Your task to perform on an android device: Clear the shopping cart on newegg.com. Image 0: 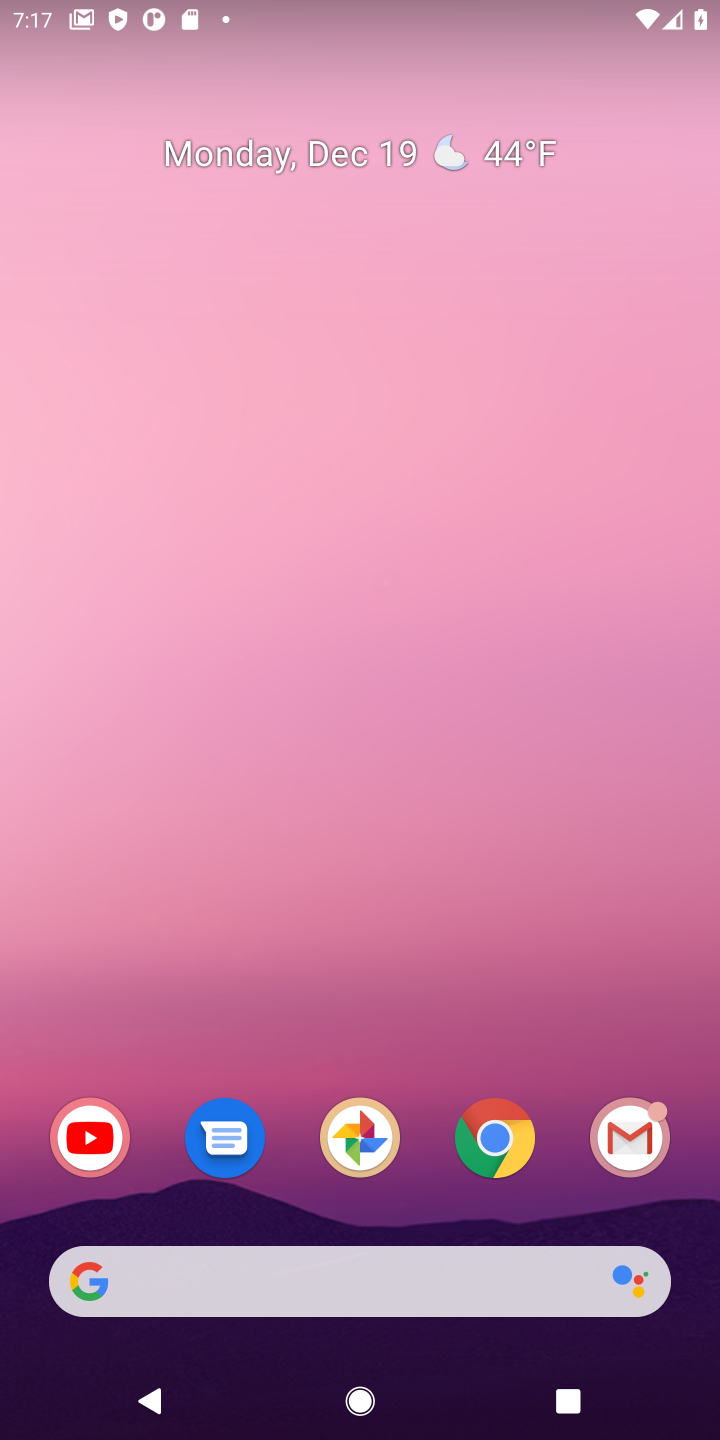
Step 0: click (509, 1163)
Your task to perform on an android device: Clear the shopping cart on newegg.com. Image 1: 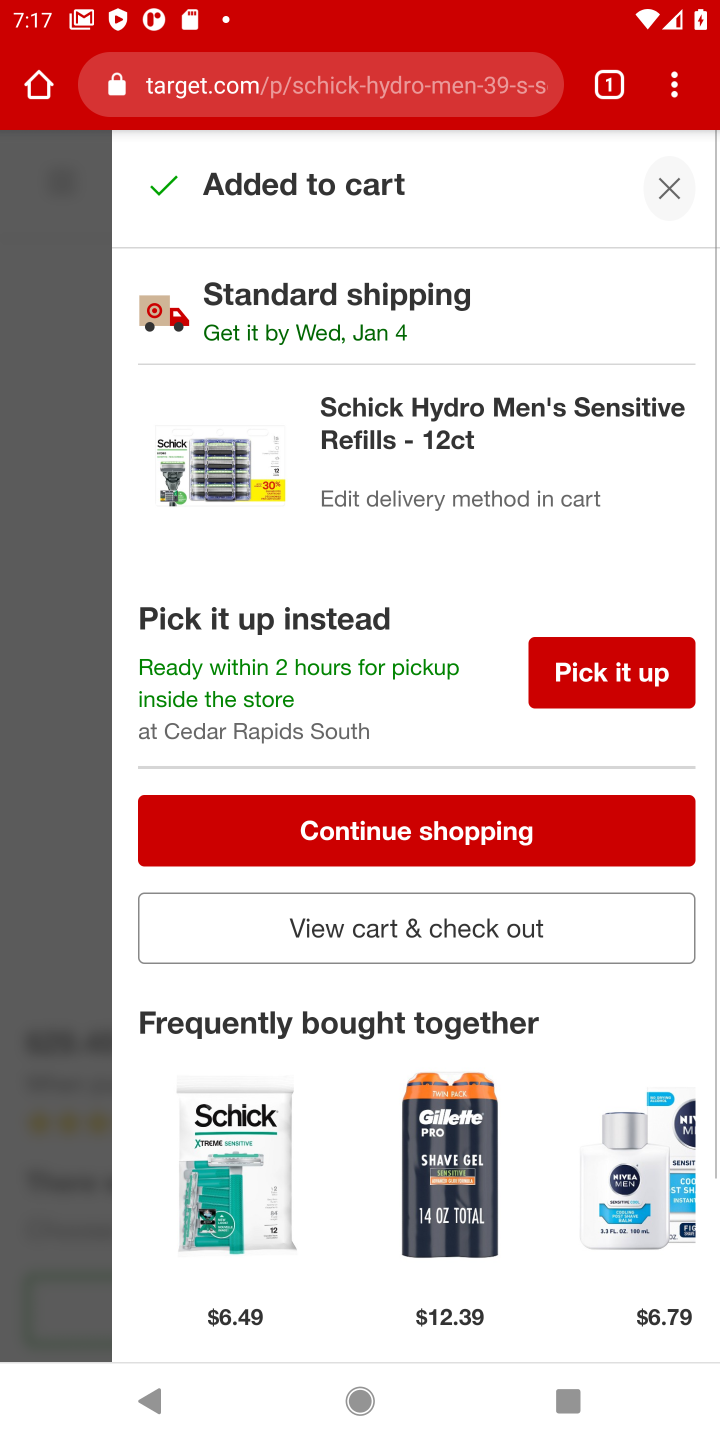
Step 1: click (339, 79)
Your task to perform on an android device: Clear the shopping cart on newegg.com. Image 2: 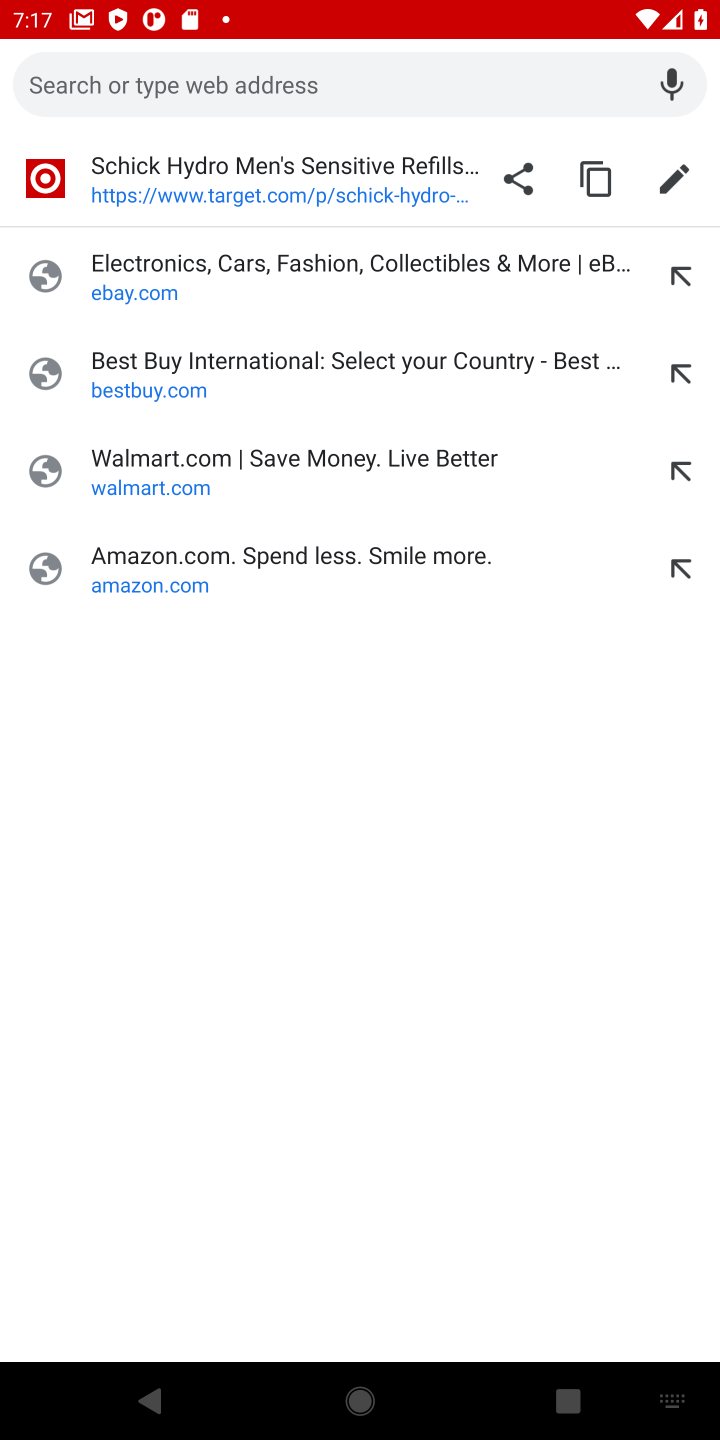
Step 2: type "NEWEGG"
Your task to perform on an android device: Clear the shopping cart on newegg.com. Image 3: 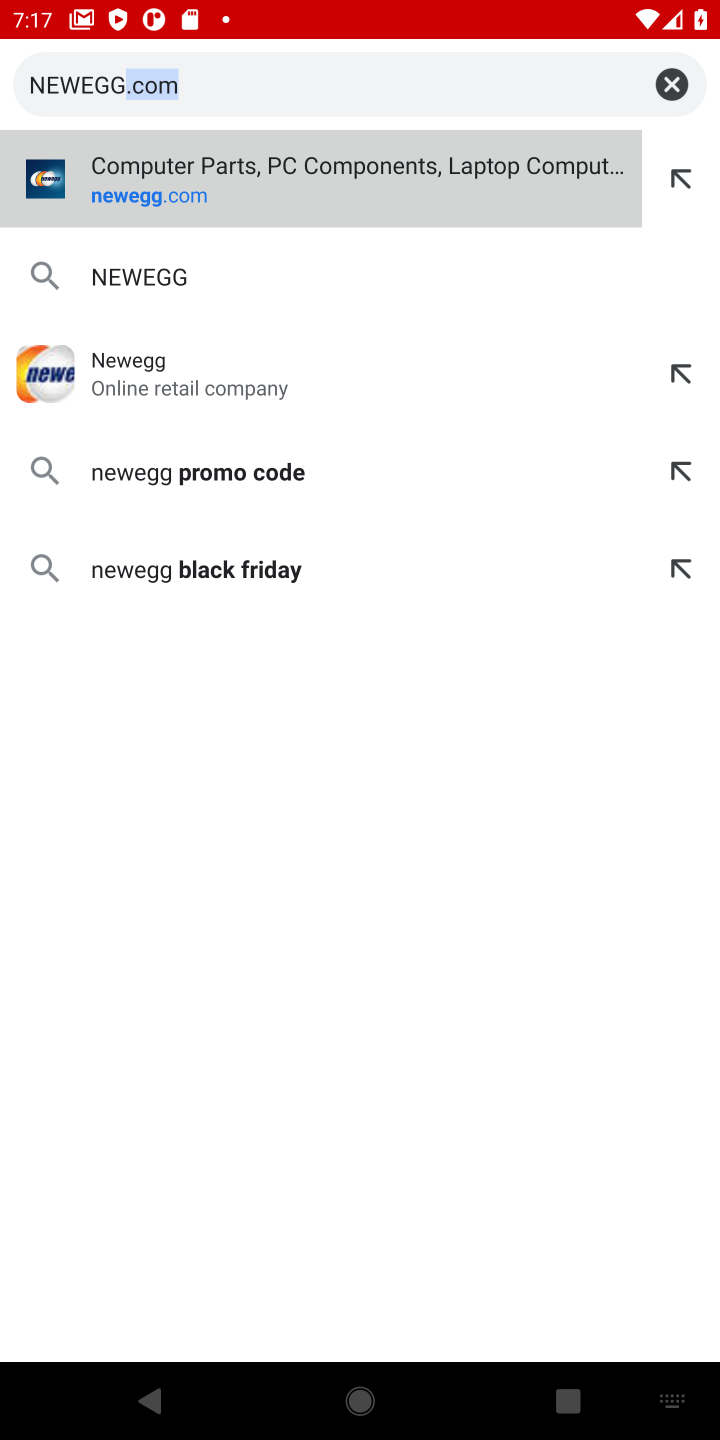
Step 3: click (297, 176)
Your task to perform on an android device: Clear the shopping cart on newegg.com. Image 4: 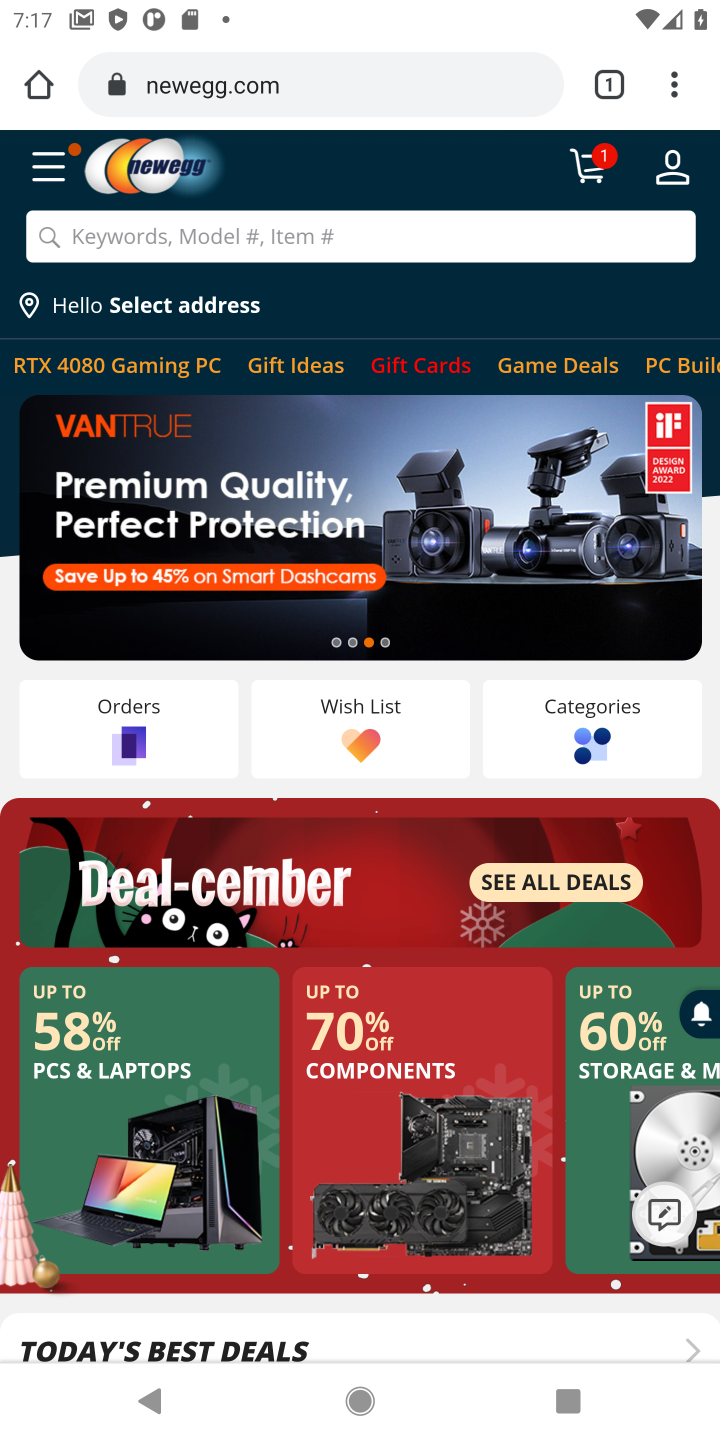
Step 4: click (593, 164)
Your task to perform on an android device: Clear the shopping cart on newegg.com. Image 5: 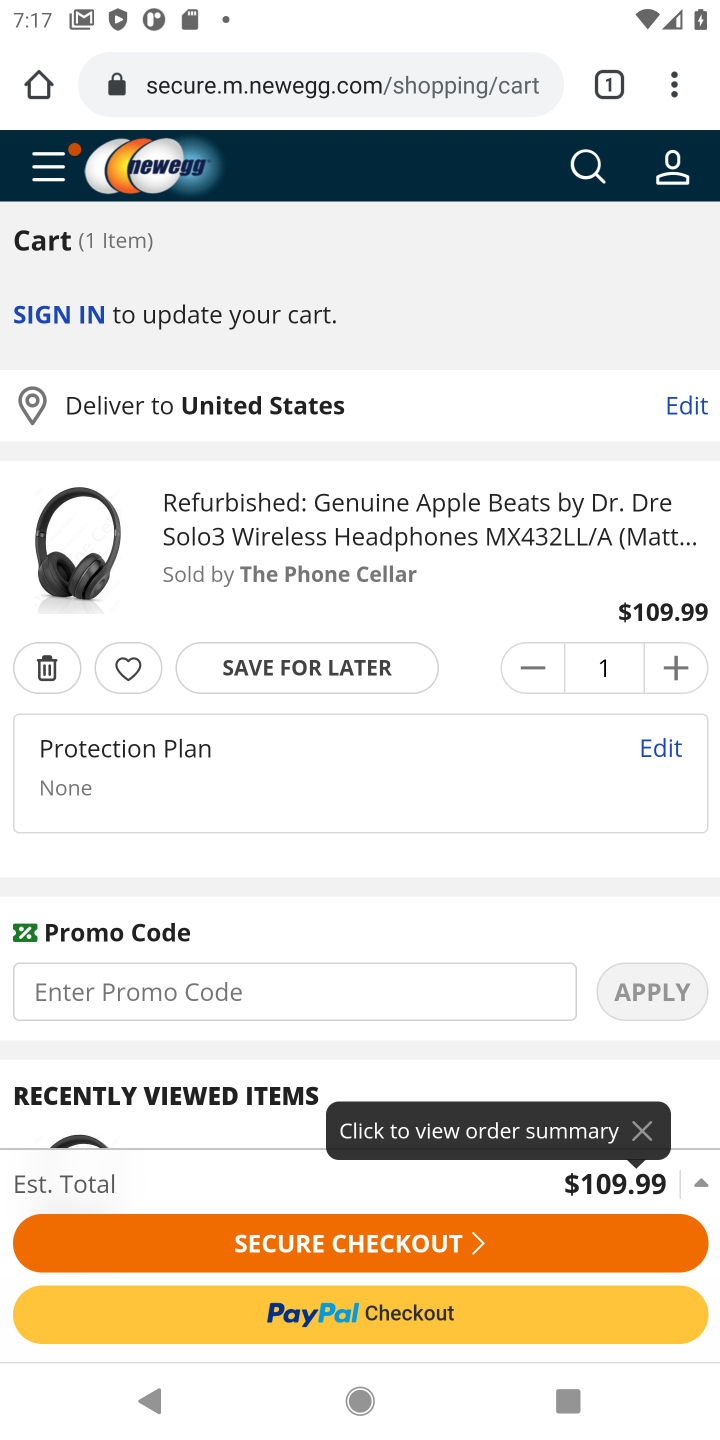
Step 5: click (33, 663)
Your task to perform on an android device: Clear the shopping cart on newegg.com. Image 6: 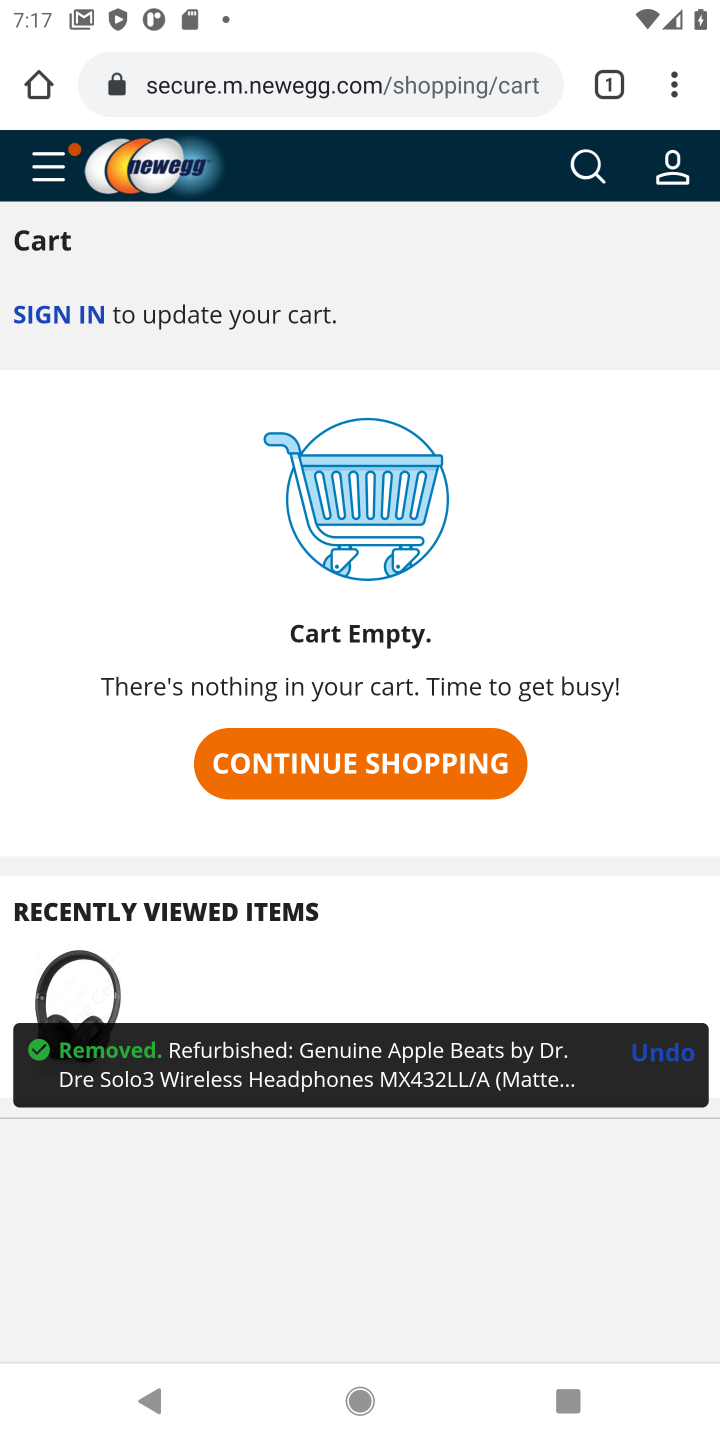
Step 6: click (586, 172)
Your task to perform on an android device: Clear the shopping cart on newegg.com. Image 7: 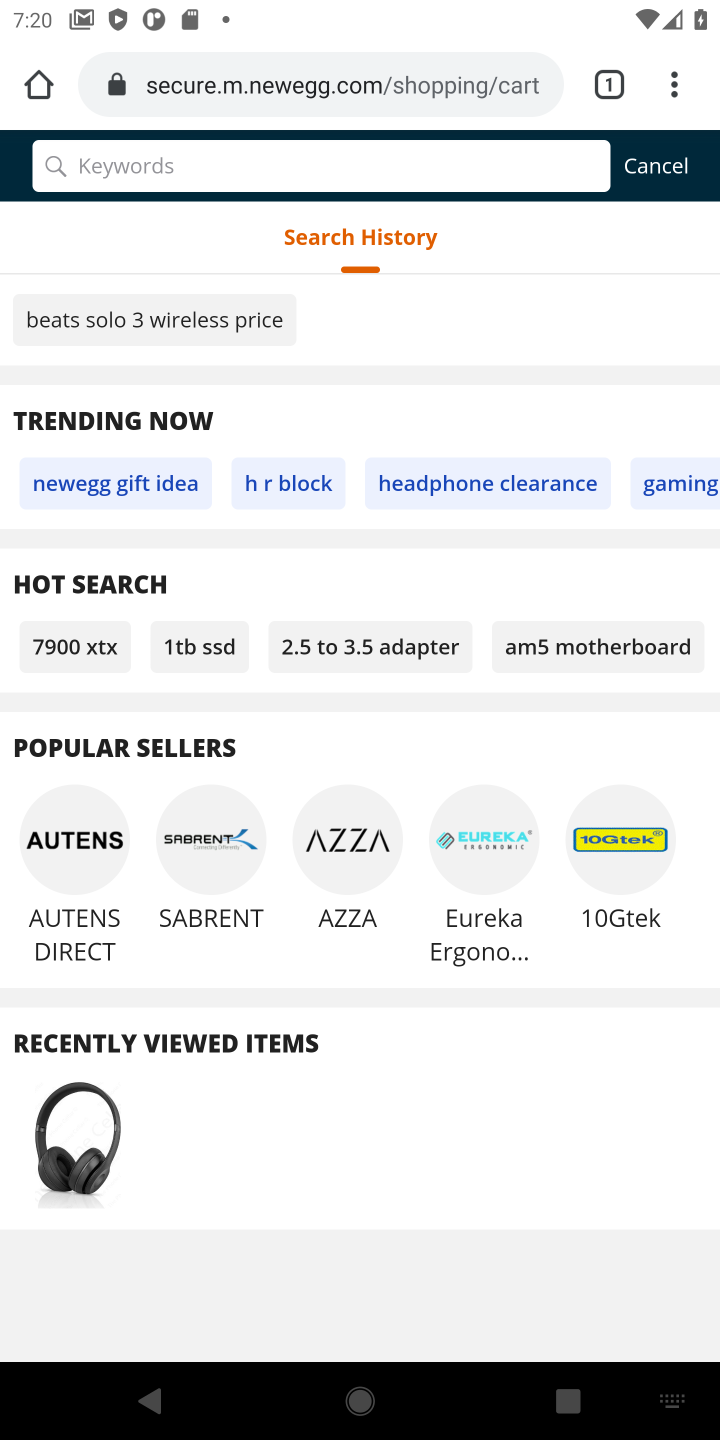
Step 7: click (501, 157)
Your task to perform on an android device: Clear the shopping cart on newegg.com. Image 8: 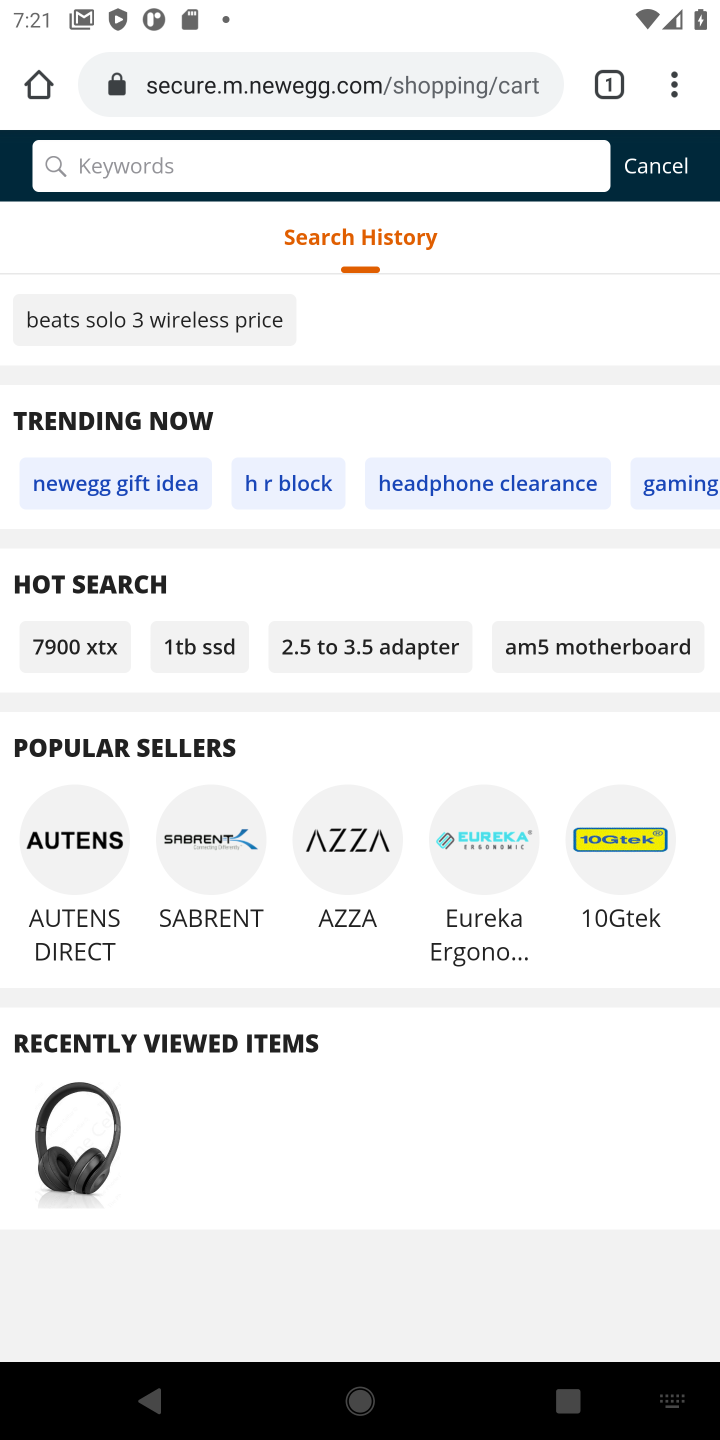
Step 8: task complete